Your task to perform on an android device: clear history in the chrome app Image 0: 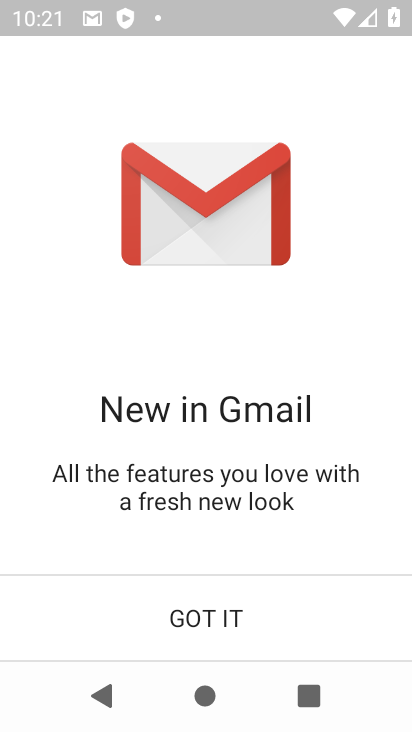
Step 0: press back button
Your task to perform on an android device: clear history in the chrome app Image 1: 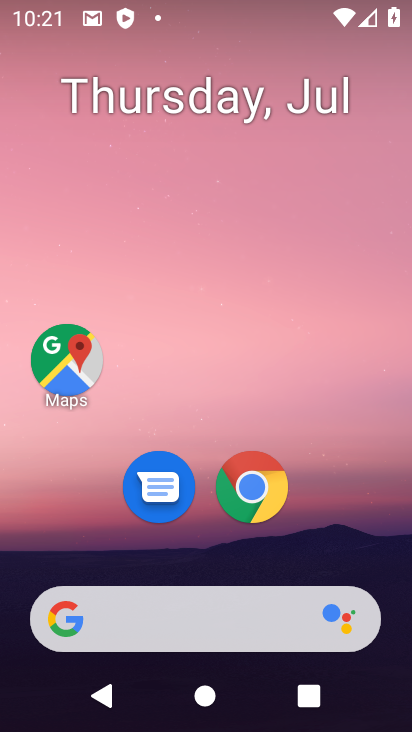
Step 1: click (264, 472)
Your task to perform on an android device: clear history in the chrome app Image 2: 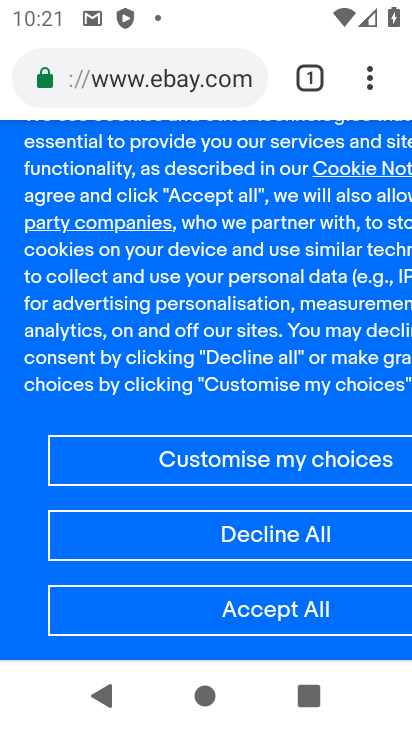
Step 2: drag from (370, 79) to (95, 425)
Your task to perform on an android device: clear history in the chrome app Image 3: 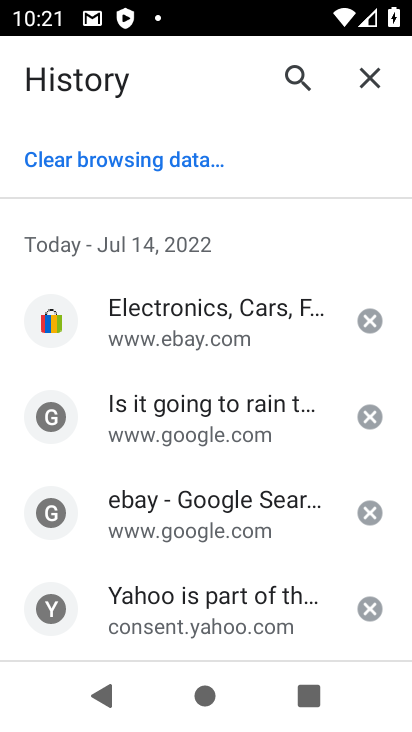
Step 3: click (124, 147)
Your task to perform on an android device: clear history in the chrome app Image 4: 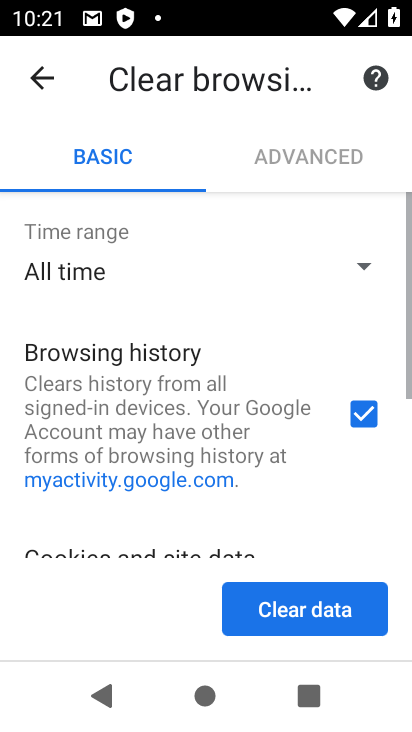
Step 4: drag from (250, 506) to (289, 280)
Your task to perform on an android device: clear history in the chrome app Image 5: 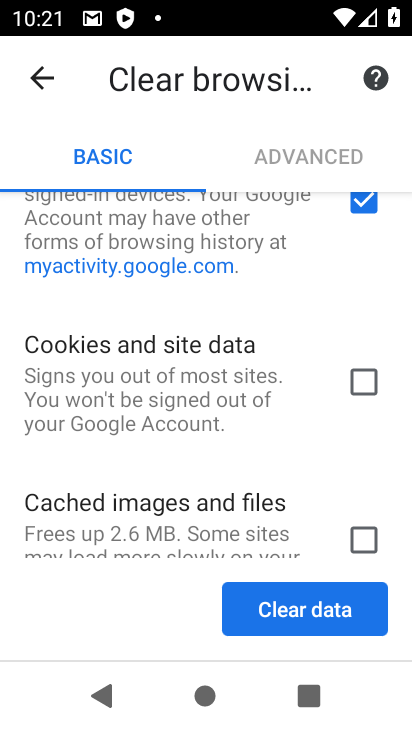
Step 5: click (369, 373)
Your task to perform on an android device: clear history in the chrome app Image 6: 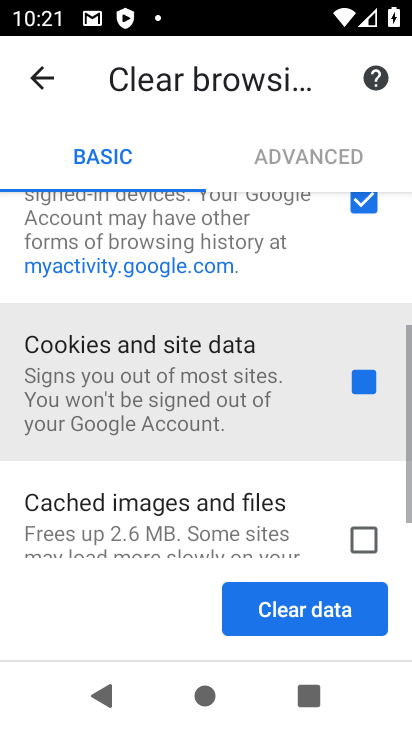
Step 6: click (374, 542)
Your task to perform on an android device: clear history in the chrome app Image 7: 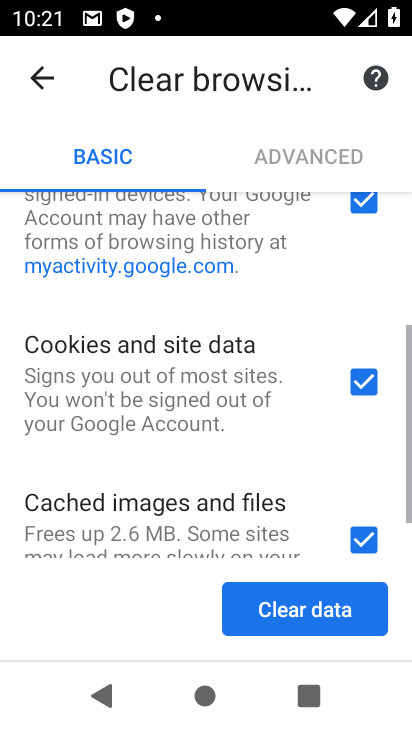
Step 7: click (299, 619)
Your task to perform on an android device: clear history in the chrome app Image 8: 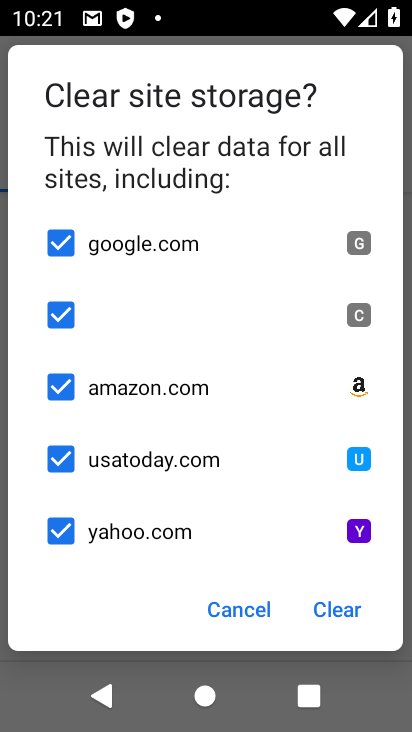
Step 8: click (319, 612)
Your task to perform on an android device: clear history in the chrome app Image 9: 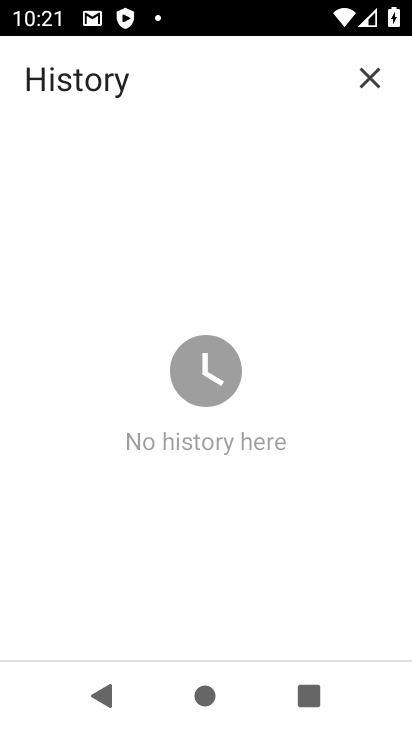
Step 9: task complete